Your task to perform on an android device: open wifi settings Image 0: 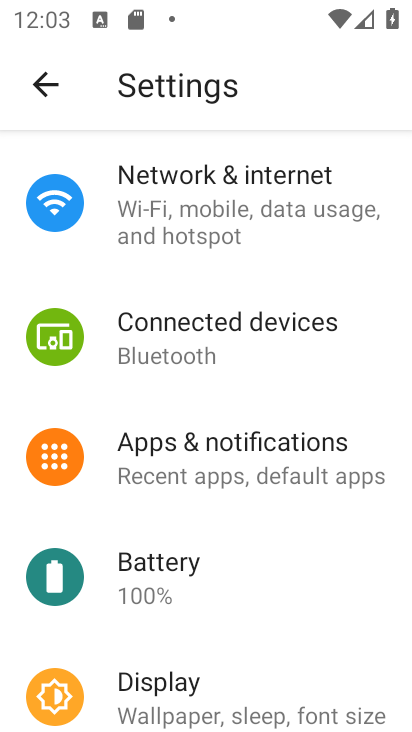
Step 0: click (227, 191)
Your task to perform on an android device: open wifi settings Image 1: 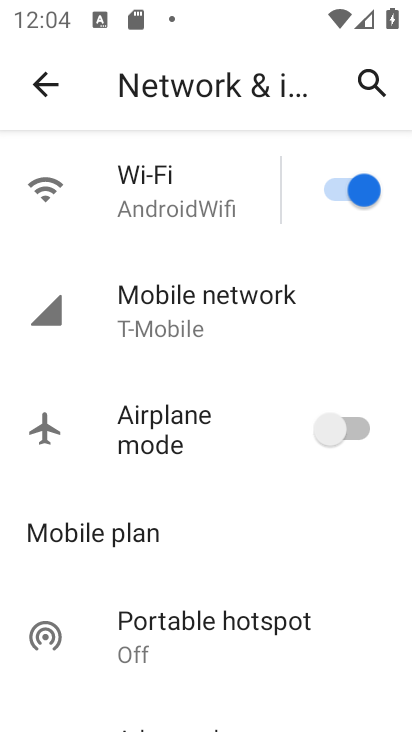
Step 1: click (177, 210)
Your task to perform on an android device: open wifi settings Image 2: 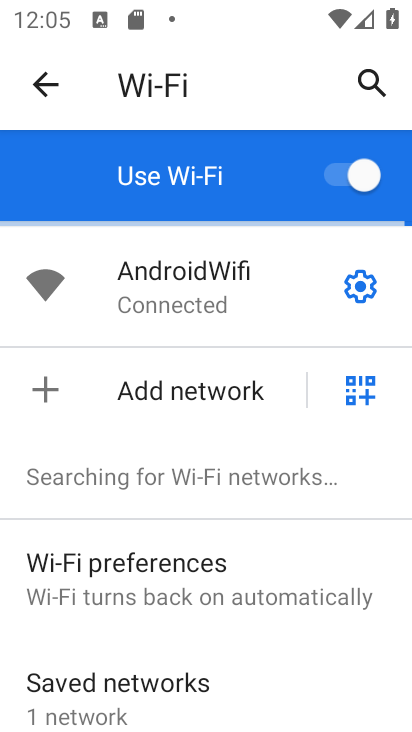
Step 2: click (397, 586)
Your task to perform on an android device: open wifi settings Image 3: 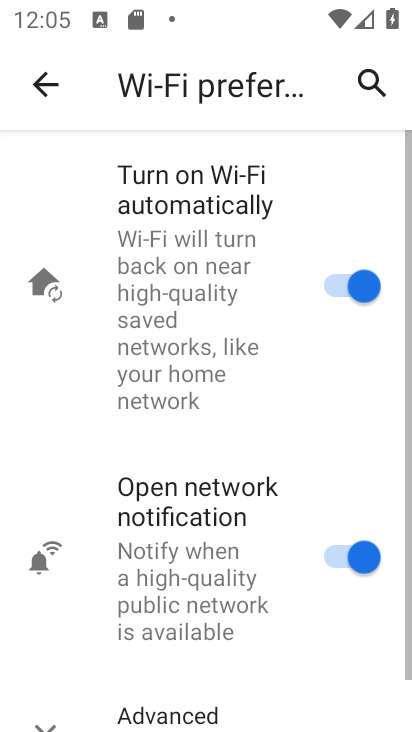
Step 3: task complete